Your task to perform on an android device: delete a single message in the gmail app Image 0: 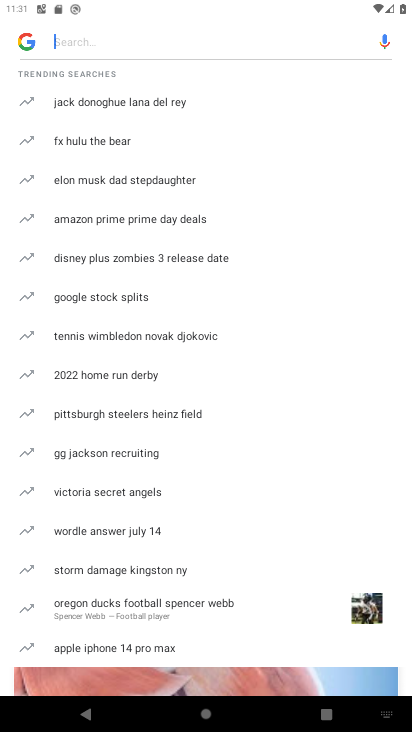
Step 0: press back button
Your task to perform on an android device: delete a single message in the gmail app Image 1: 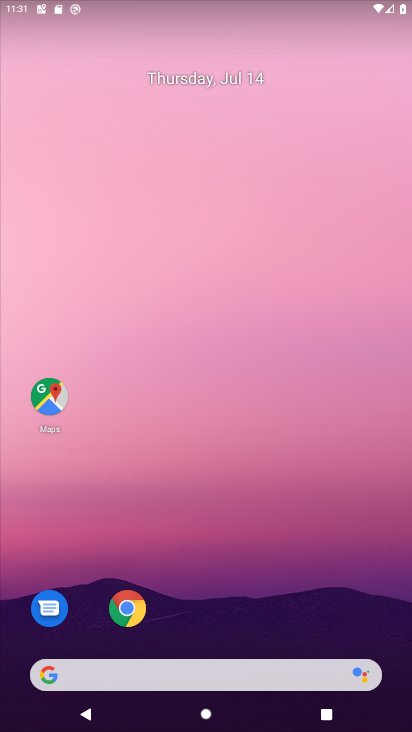
Step 1: drag from (204, 644) to (254, 306)
Your task to perform on an android device: delete a single message in the gmail app Image 2: 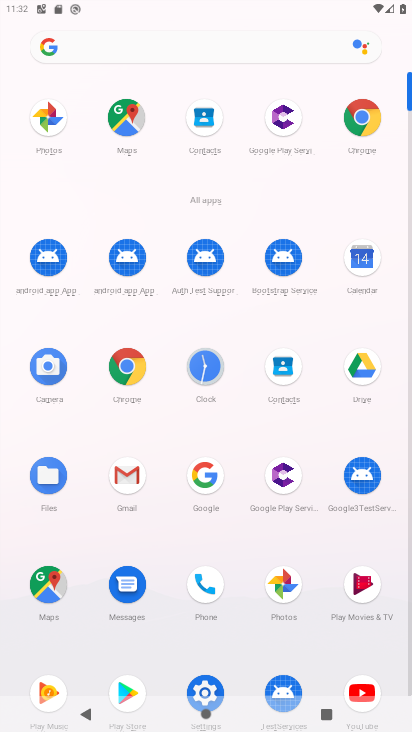
Step 2: click (132, 481)
Your task to perform on an android device: delete a single message in the gmail app Image 3: 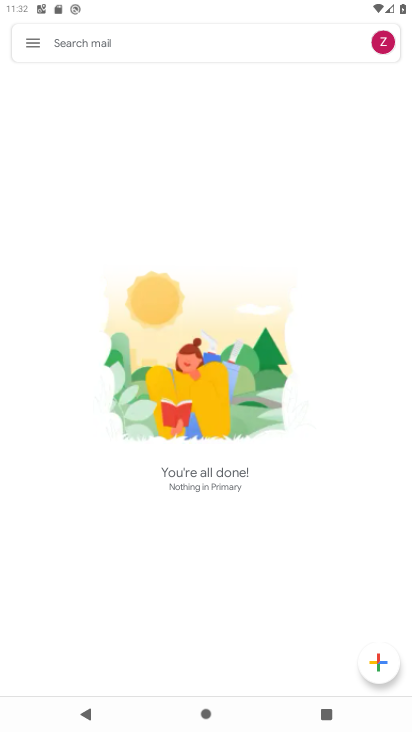
Step 3: click (35, 37)
Your task to perform on an android device: delete a single message in the gmail app Image 4: 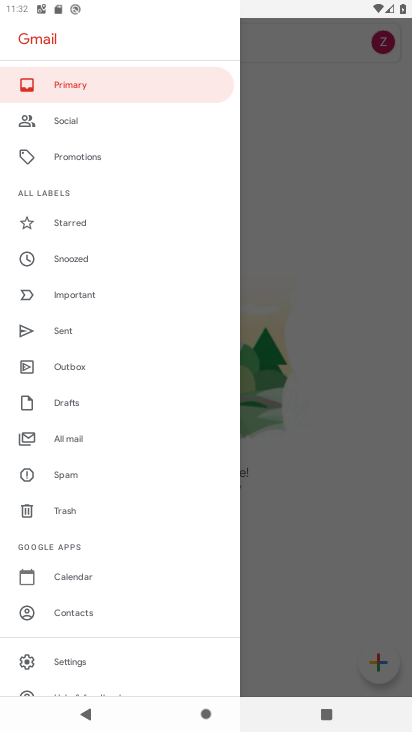
Step 4: drag from (102, 603) to (143, 227)
Your task to perform on an android device: delete a single message in the gmail app Image 5: 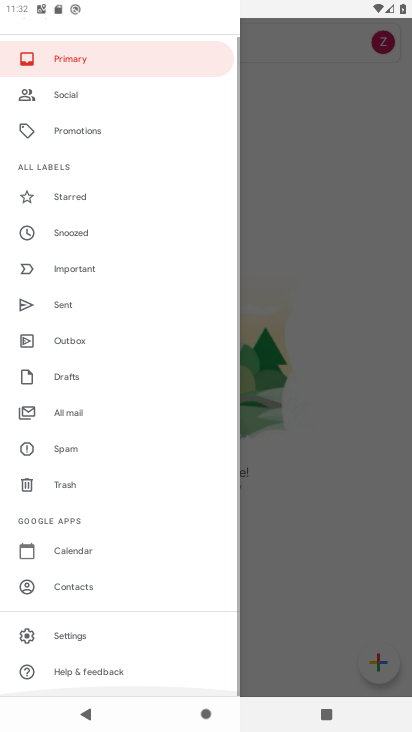
Step 5: drag from (138, 212) to (143, 729)
Your task to perform on an android device: delete a single message in the gmail app Image 6: 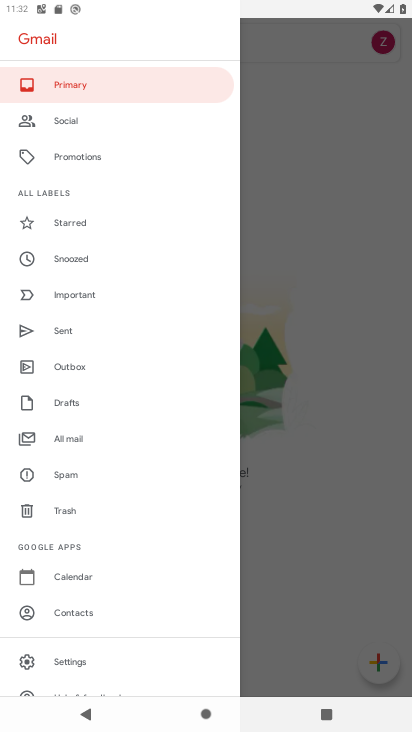
Step 6: click (305, 327)
Your task to perform on an android device: delete a single message in the gmail app Image 7: 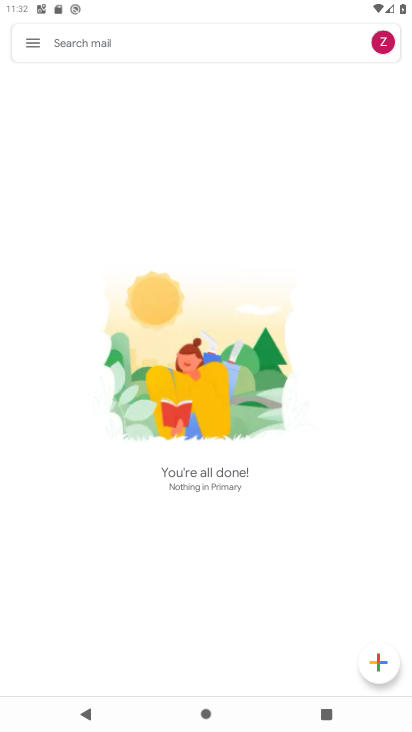
Step 7: click (361, 256)
Your task to perform on an android device: delete a single message in the gmail app Image 8: 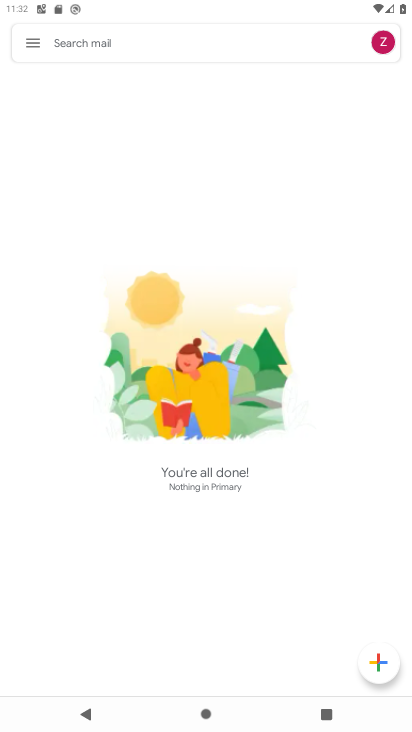
Step 8: task complete